Your task to perform on an android device: turn off sleep mode Image 0: 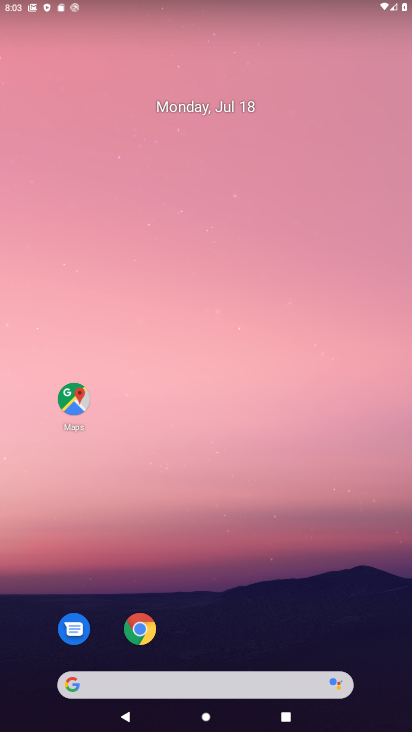
Step 0: drag from (284, 4) to (189, 533)
Your task to perform on an android device: turn off sleep mode Image 1: 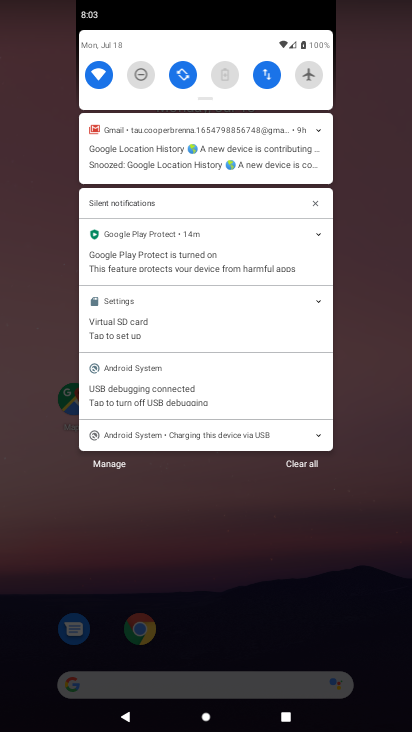
Step 1: drag from (205, 90) to (164, 484)
Your task to perform on an android device: turn off sleep mode Image 2: 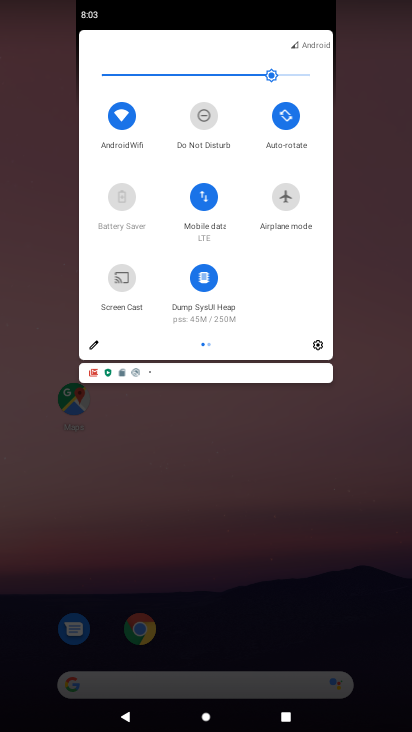
Step 2: click (163, 485)
Your task to perform on an android device: turn off sleep mode Image 3: 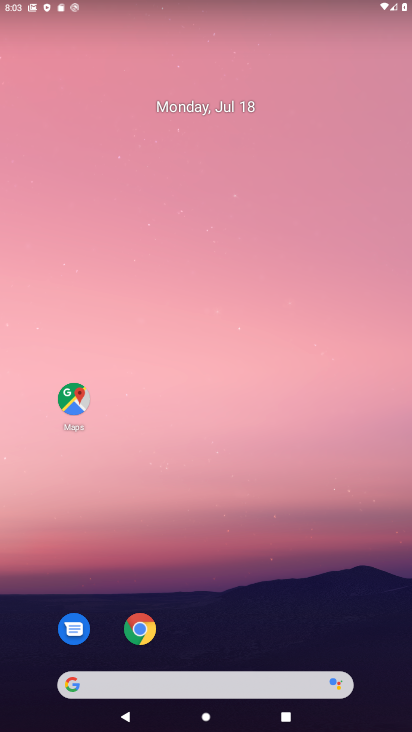
Step 3: task complete